Your task to perform on an android device: turn off improve location accuracy Image 0: 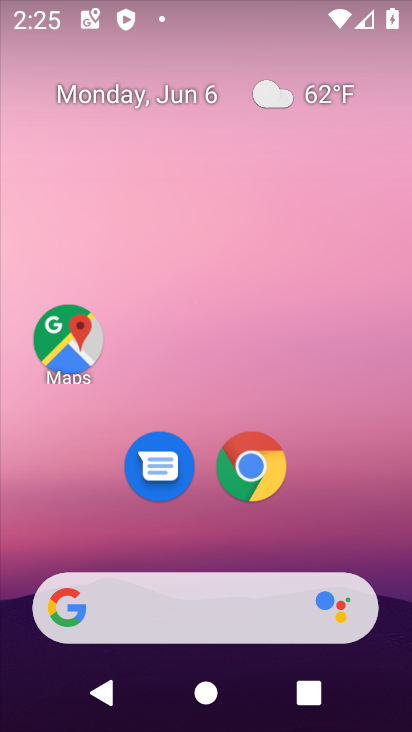
Step 0: drag from (209, 506) to (153, 249)
Your task to perform on an android device: turn off improve location accuracy Image 1: 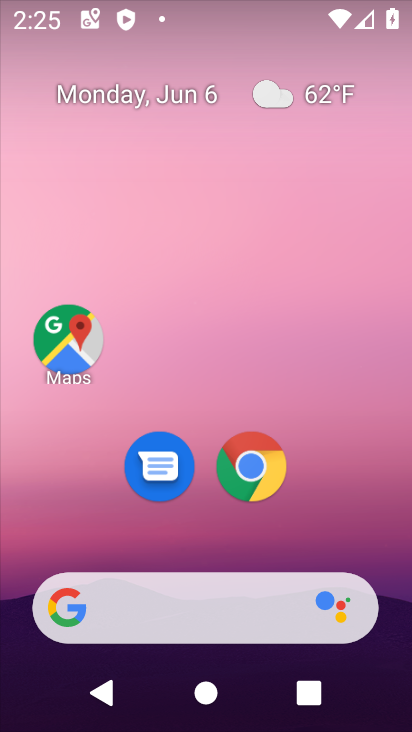
Step 1: drag from (259, 185) to (227, 42)
Your task to perform on an android device: turn off improve location accuracy Image 2: 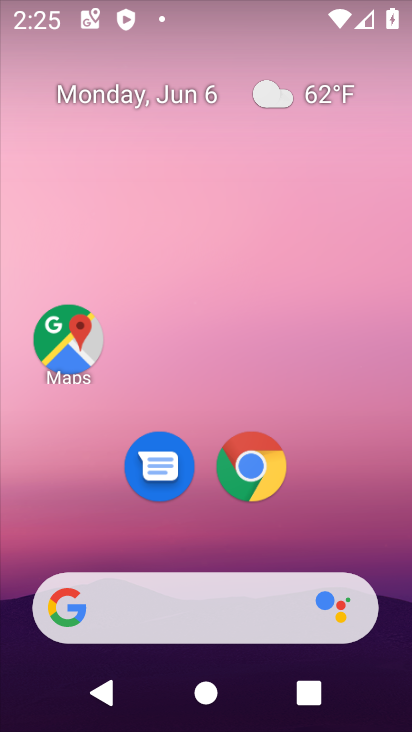
Step 2: drag from (253, 521) to (189, 46)
Your task to perform on an android device: turn off improve location accuracy Image 3: 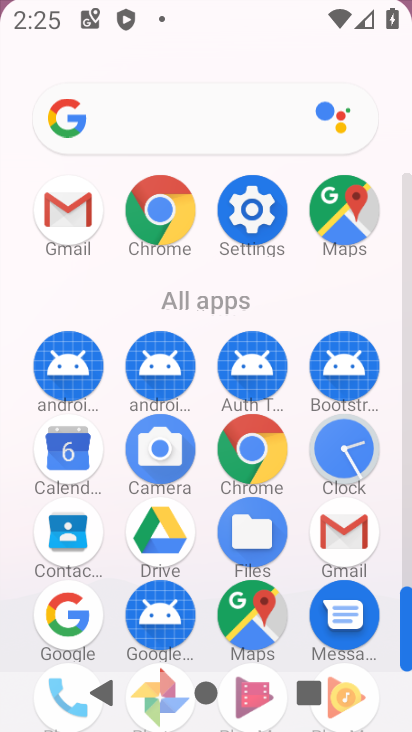
Step 3: drag from (229, 490) to (193, 174)
Your task to perform on an android device: turn off improve location accuracy Image 4: 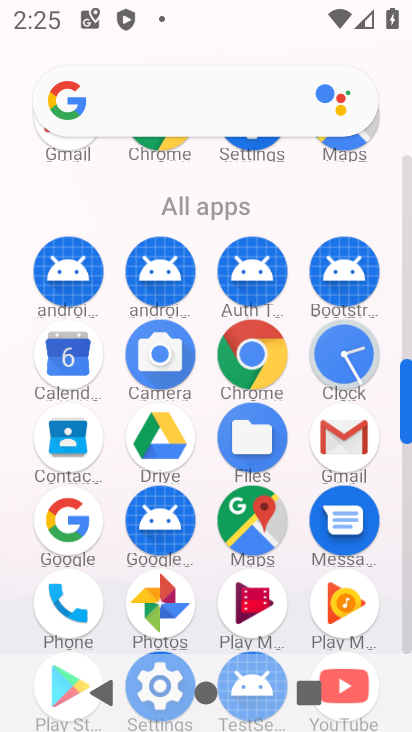
Step 4: drag from (198, 428) to (197, 131)
Your task to perform on an android device: turn off improve location accuracy Image 5: 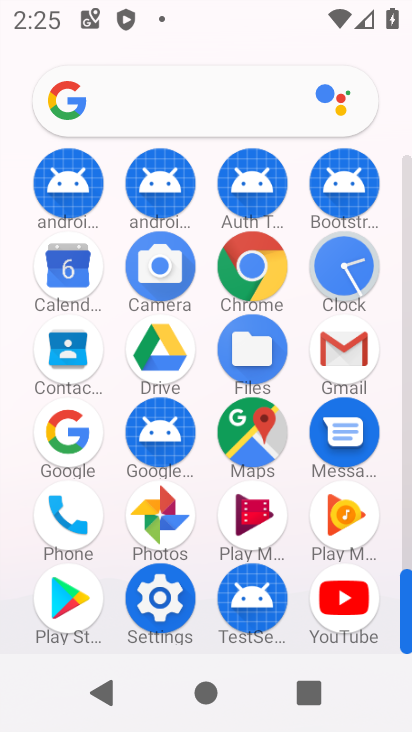
Step 5: drag from (197, 393) to (187, 193)
Your task to perform on an android device: turn off improve location accuracy Image 6: 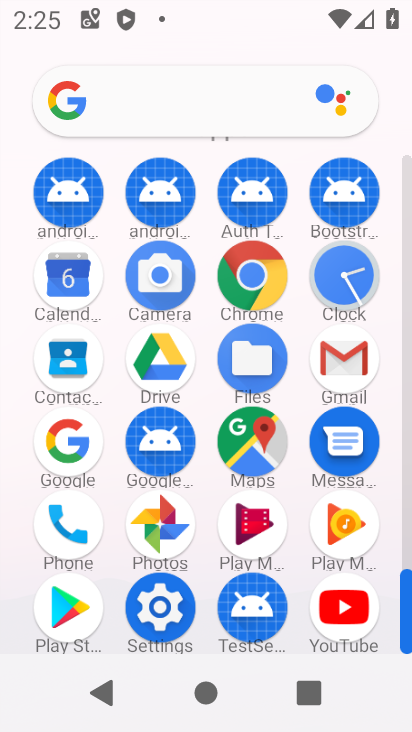
Step 6: click (165, 605)
Your task to perform on an android device: turn off improve location accuracy Image 7: 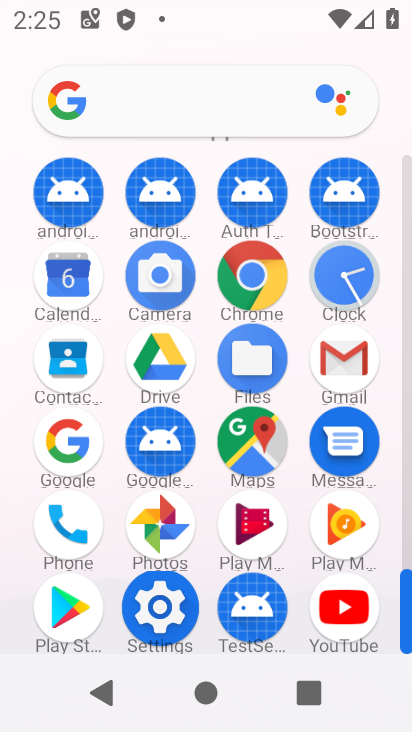
Step 7: click (165, 605)
Your task to perform on an android device: turn off improve location accuracy Image 8: 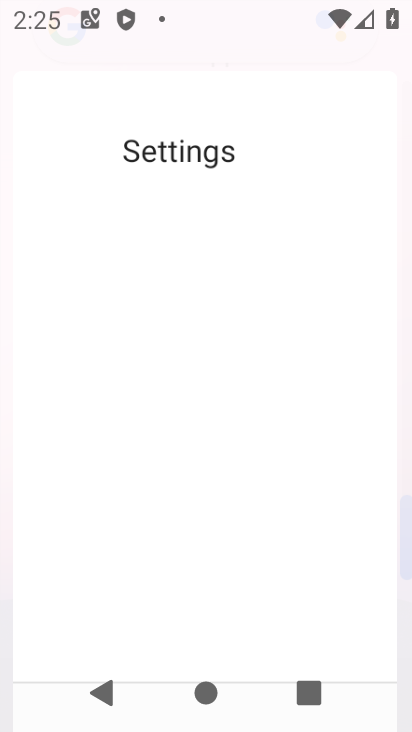
Step 8: click (165, 605)
Your task to perform on an android device: turn off improve location accuracy Image 9: 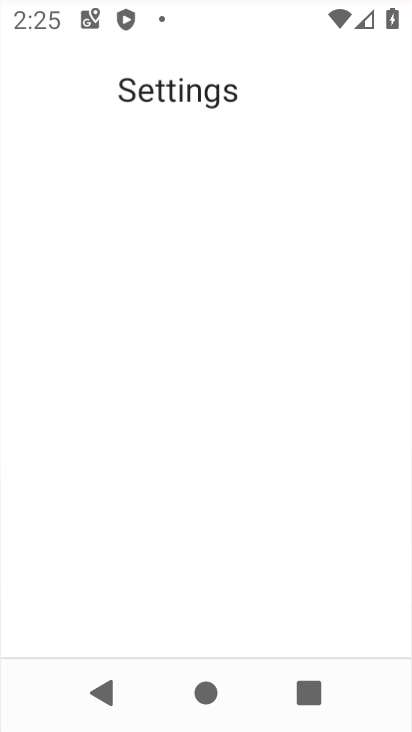
Step 9: click (165, 605)
Your task to perform on an android device: turn off improve location accuracy Image 10: 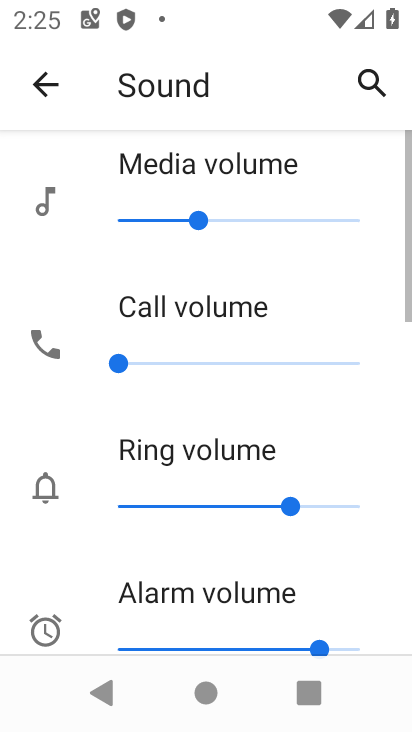
Step 10: click (47, 95)
Your task to perform on an android device: turn off improve location accuracy Image 11: 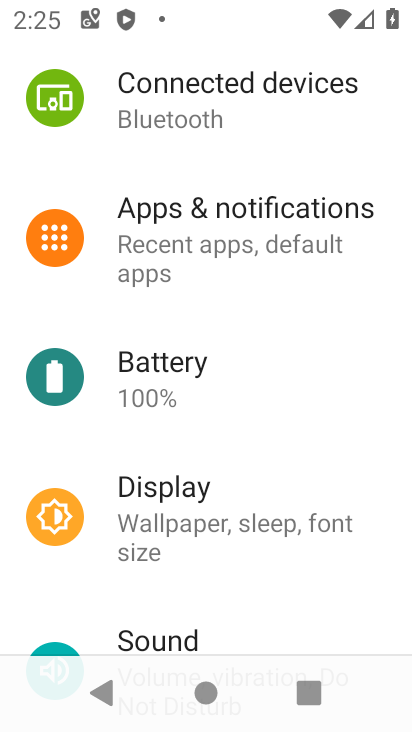
Step 11: drag from (182, 536) to (177, 126)
Your task to perform on an android device: turn off improve location accuracy Image 12: 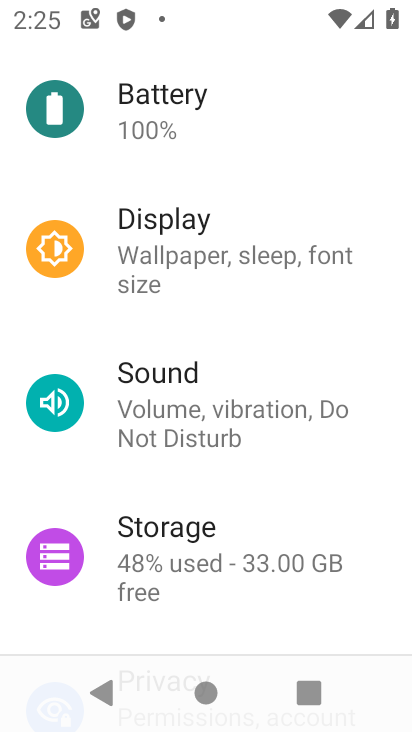
Step 12: drag from (190, 361) to (183, 132)
Your task to perform on an android device: turn off improve location accuracy Image 13: 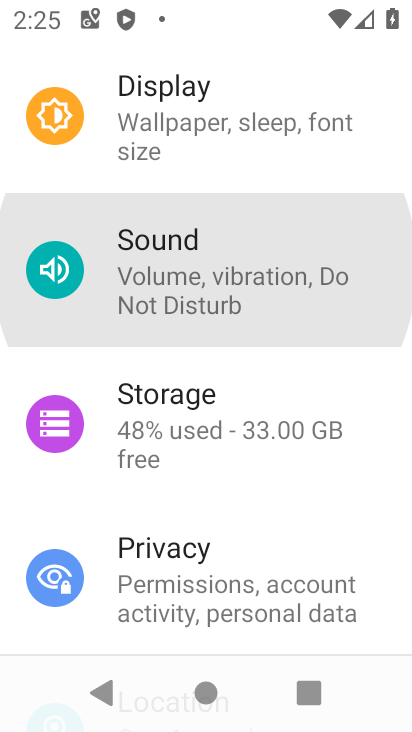
Step 13: drag from (210, 403) to (194, 84)
Your task to perform on an android device: turn off improve location accuracy Image 14: 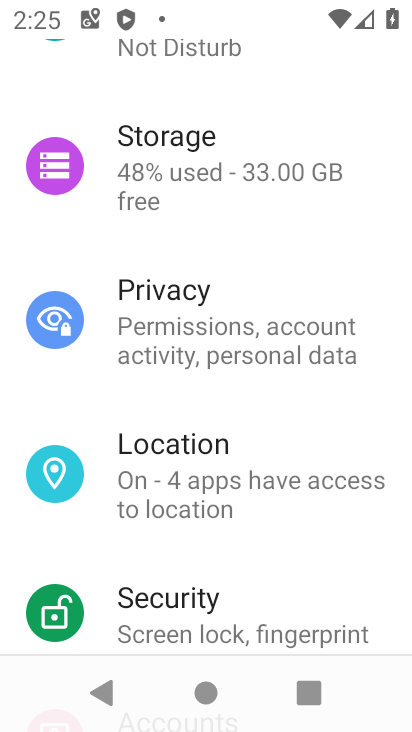
Step 14: click (164, 479)
Your task to perform on an android device: turn off improve location accuracy Image 15: 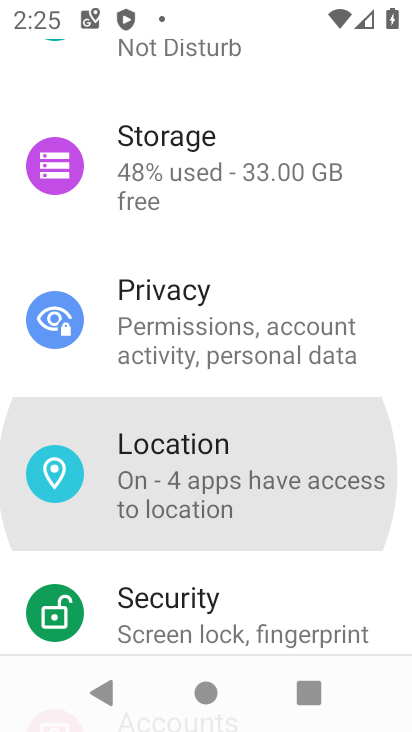
Step 15: click (164, 479)
Your task to perform on an android device: turn off improve location accuracy Image 16: 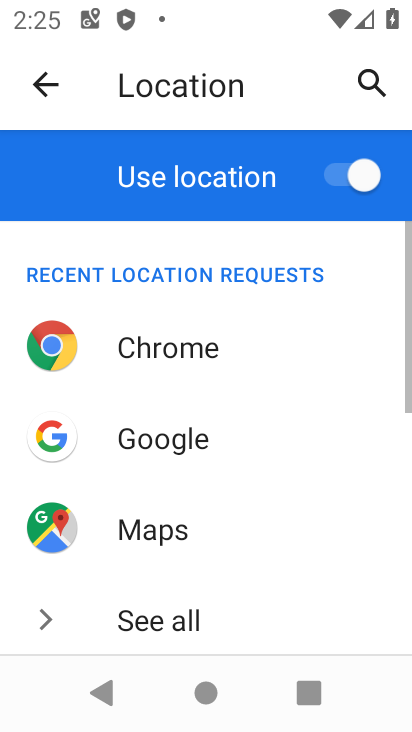
Step 16: drag from (195, 506) to (204, 134)
Your task to perform on an android device: turn off improve location accuracy Image 17: 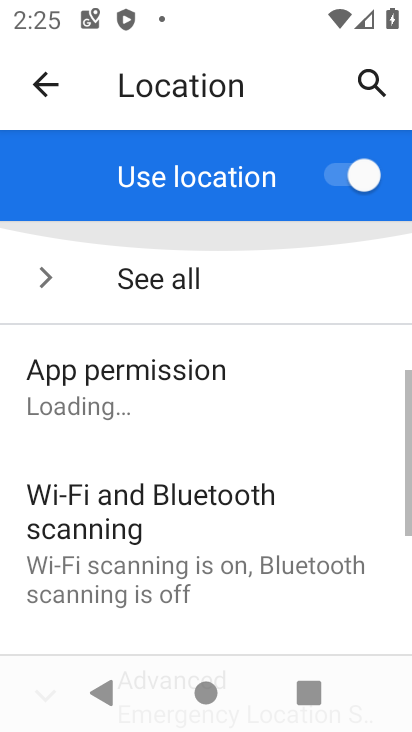
Step 17: drag from (222, 490) to (222, 207)
Your task to perform on an android device: turn off improve location accuracy Image 18: 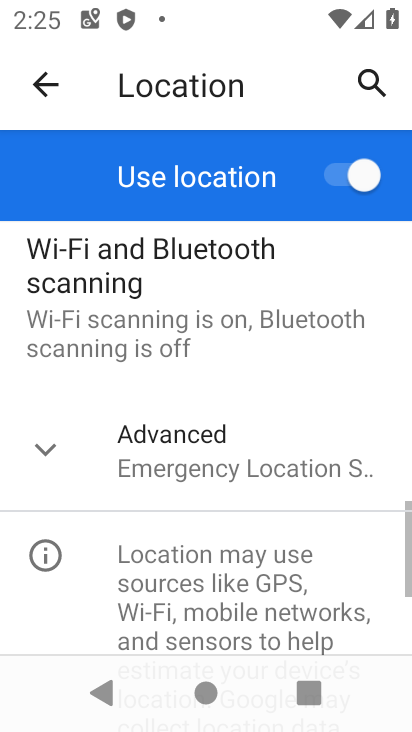
Step 18: drag from (261, 511) to (232, 213)
Your task to perform on an android device: turn off improve location accuracy Image 19: 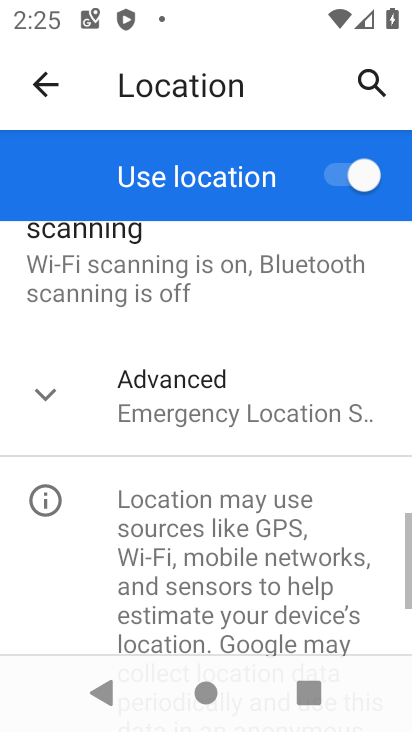
Step 19: drag from (242, 473) to (226, 207)
Your task to perform on an android device: turn off improve location accuracy Image 20: 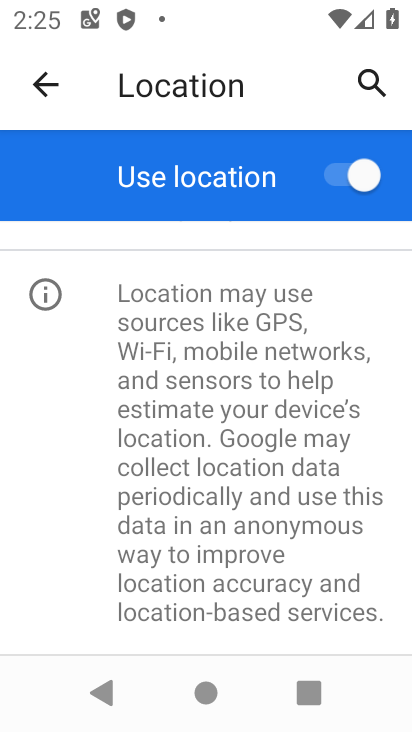
Step 20: drag from (209, 293) to (215, 564)
Your task to perform on an android device: turn off improve location accuracy Image 21: 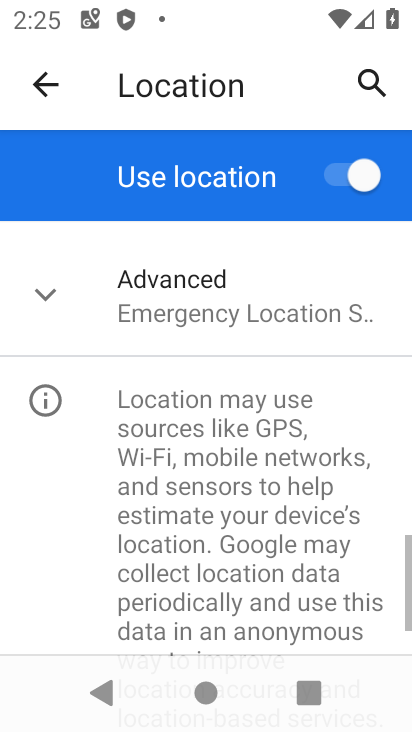
Step 21: click (203, 544)
Your task to perform on an android device: turn off improve location accuracy Image 22: 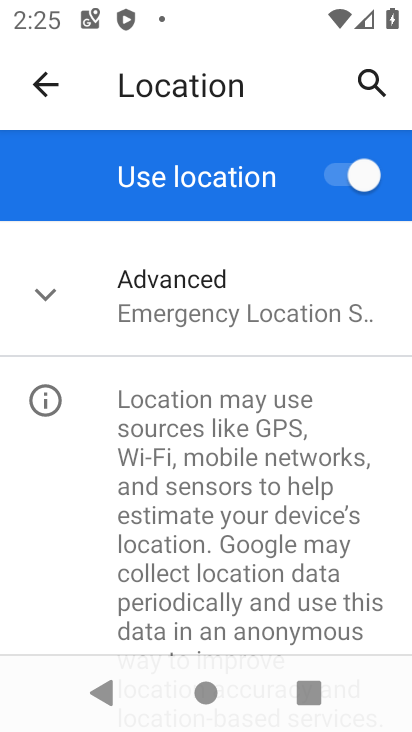
Step 22: click (165, 290)
Your task to perform on an android device: turn off improve location accuracy Image 23: 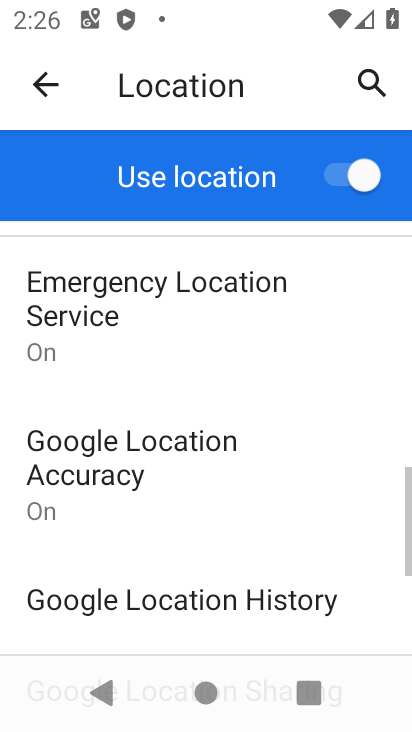
Step 23: drag from (197, 543) to (155, 143)
Your task to perform on an android device: turn off improve location accuracy Image 24: 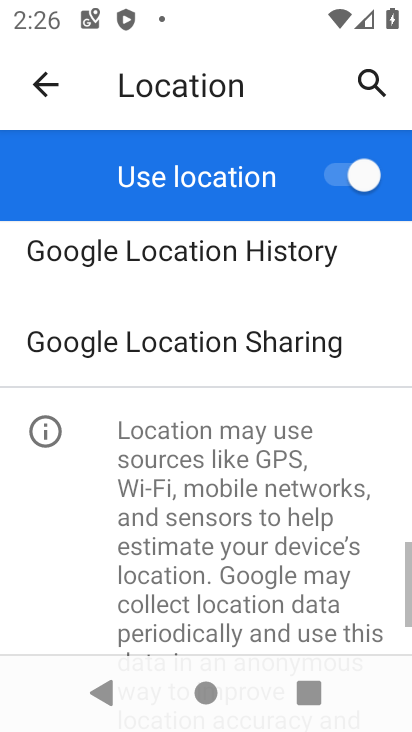
Step 24: drag from (225, 312) to (230, 227)
Your task to perform on an android device: turn off improve location accuracy Image 25: 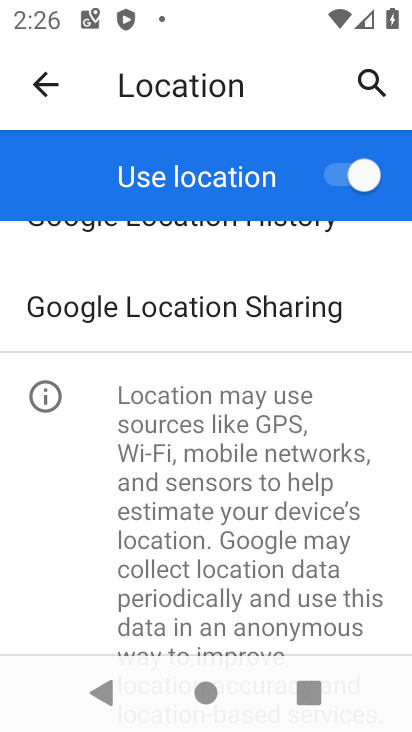
Step 25: drag from (179, 332) to (206, 499)
Your task to perform on an android device: turn off improve location accuracy Image 26: 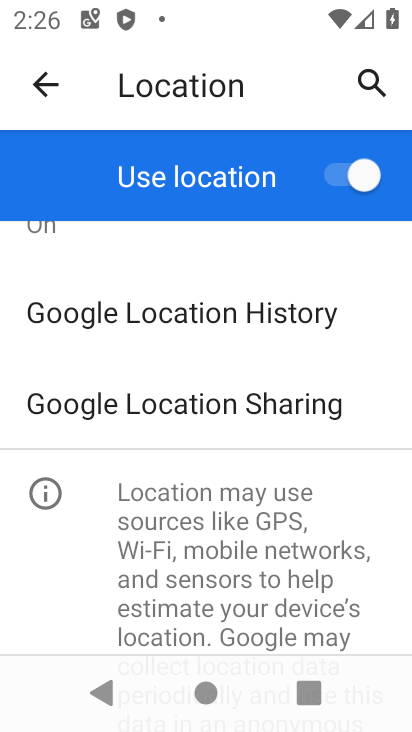
Step 26: drag from (210, 269) to (248, 563)
Your task to perform on an android device: turn off improve location accuracy Image 27: 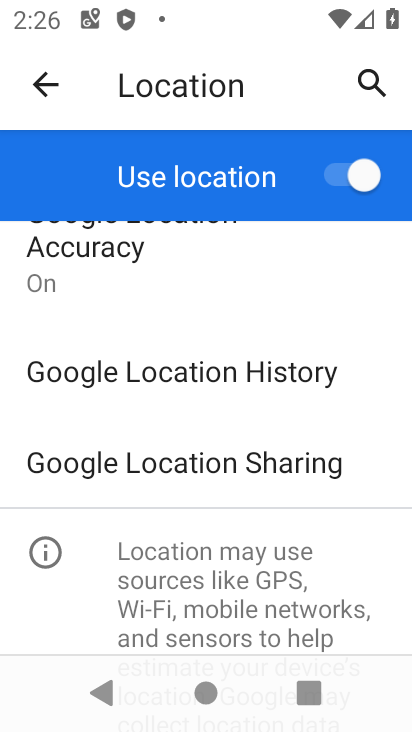
Step 27: drag from (217, 282) to (263, 483)
Your task to perform on an android device: turn off improve location accuracy Image 28: 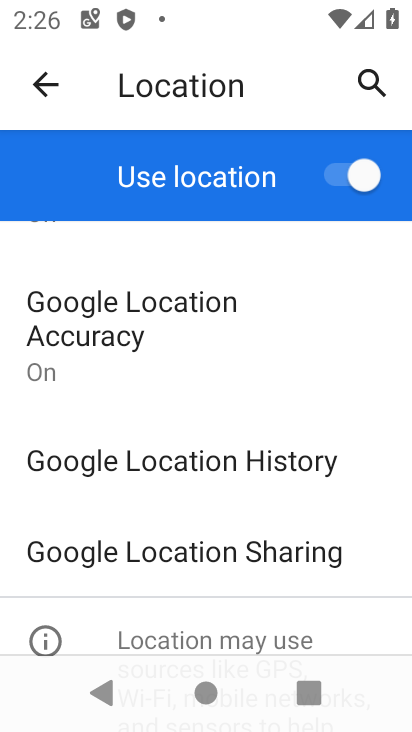
Step 28: click (157, 310)
Your task to perform on an android device: turn off improve location accuracy Image 29: 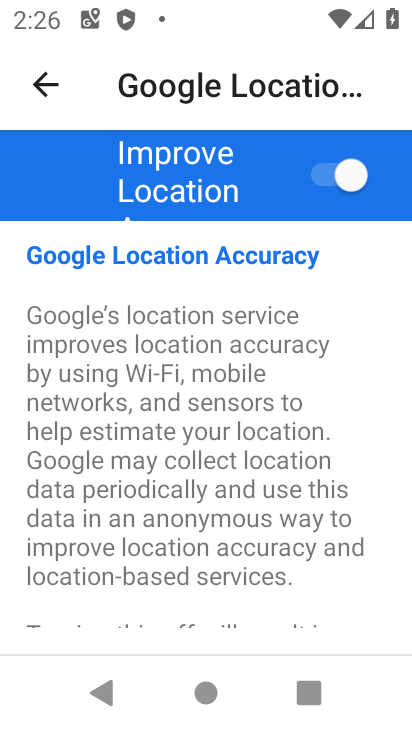
Step 29: click (345, 164)
Your task to perform on an android device: turn off improve location accuracy Image 30: 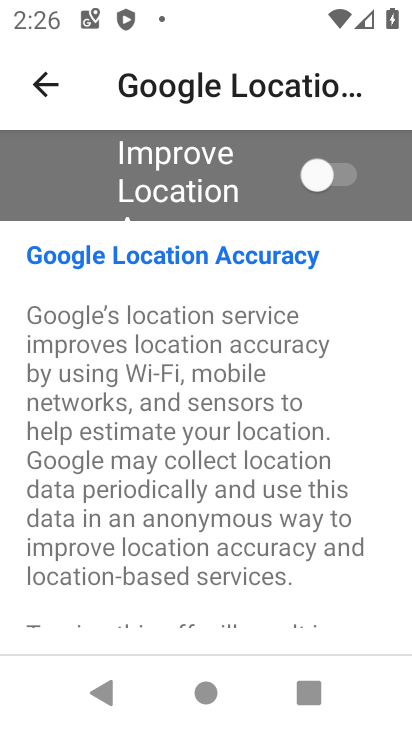
Step 30: task complete